Your task to perform on an android device: delete browsing data in the chrome app Image 0: 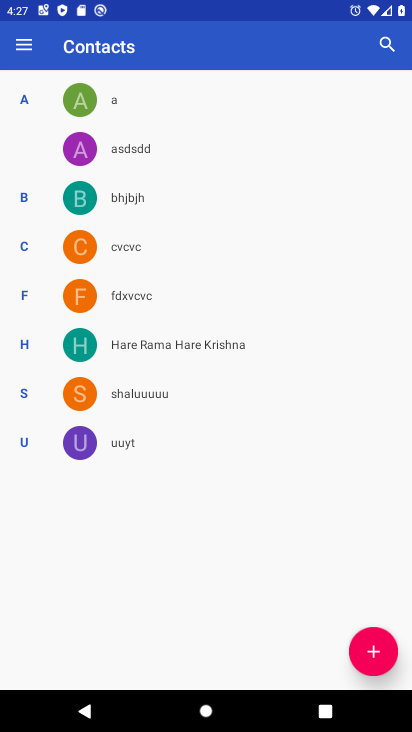
Step 0: press home button
Your task to perform on an android device: delete browsing data in the chrome app Image 1: 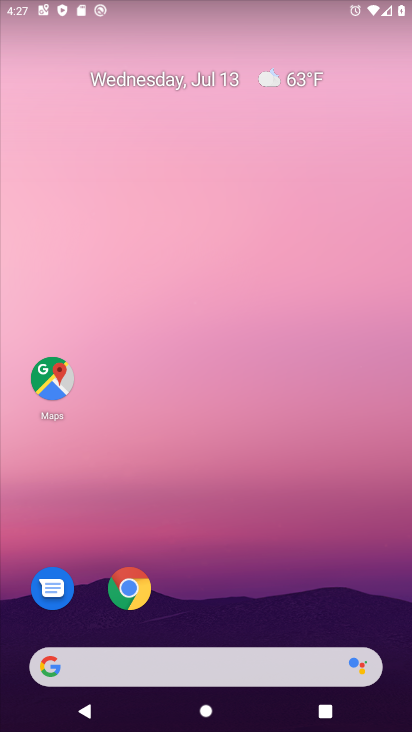
Step 1: click (128, 588)
Your task to perform on an android device: delete browsing data in the chrome app Image 2: 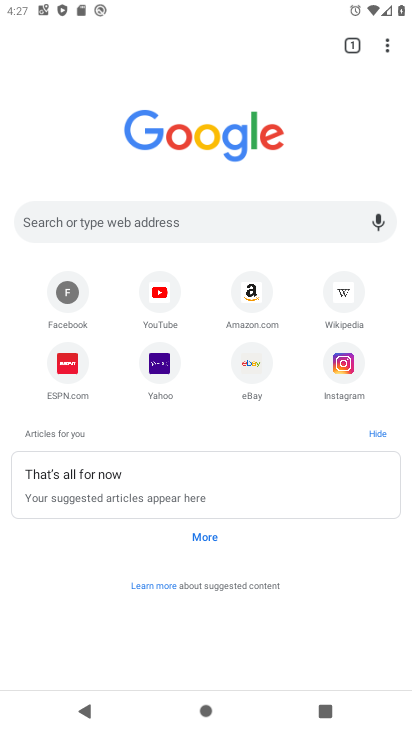
Step 2: click (387, 45)
Your task to perform on an android device: delete browsing data in the chrome app Image 3: 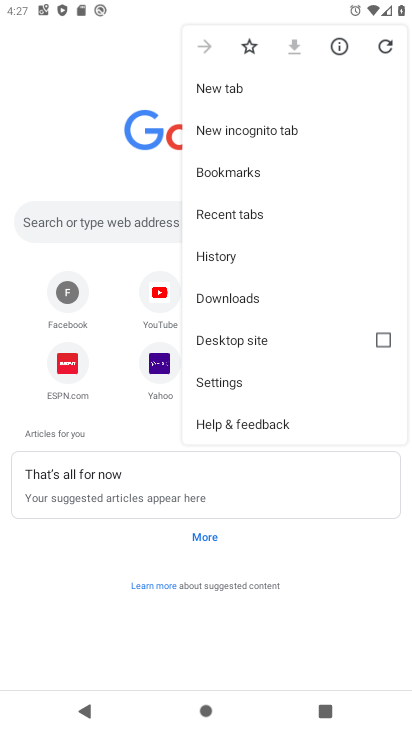
Step 3: click (227, 385)
Your task to perform on an android device: delete browsing data in the chrome app Image 4: 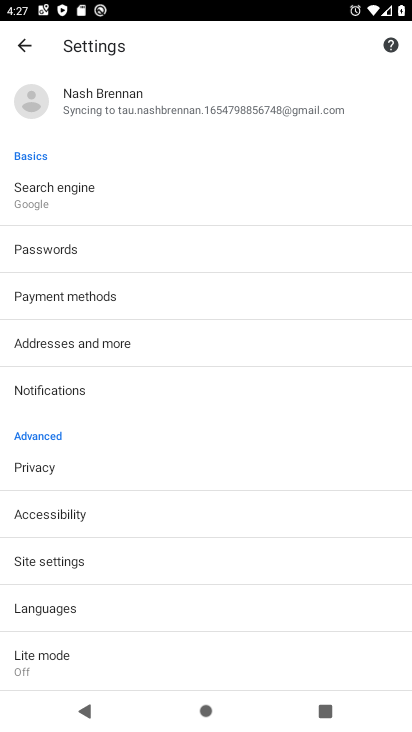
Step 4: click (40, 464)
Your task to perform on an android device: delete browsing data in the chrome app Image 5: 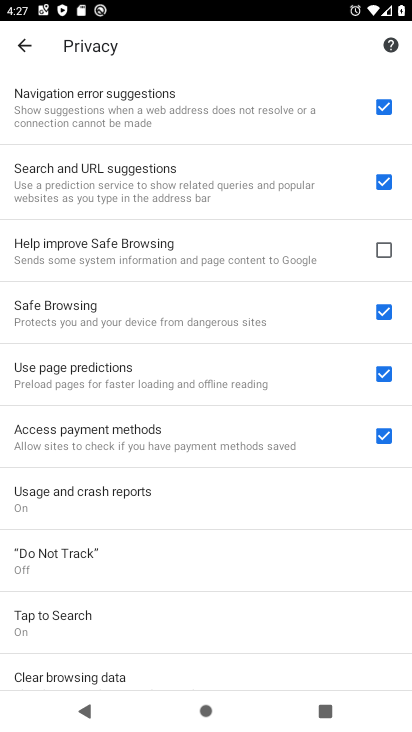
Step 5: click (59, 676)
Your task to perform on an android device: delete browsing data in the chrome app Image 6: 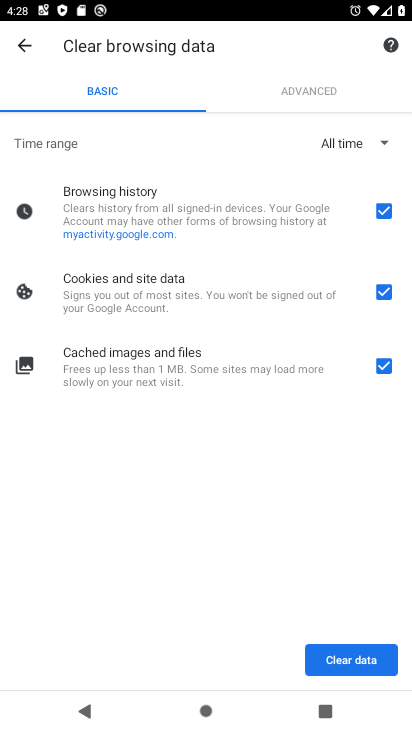
Step 6: click (335, 659)
Your task to perform on an android device: delete browsing data in the chrome app Image 7: 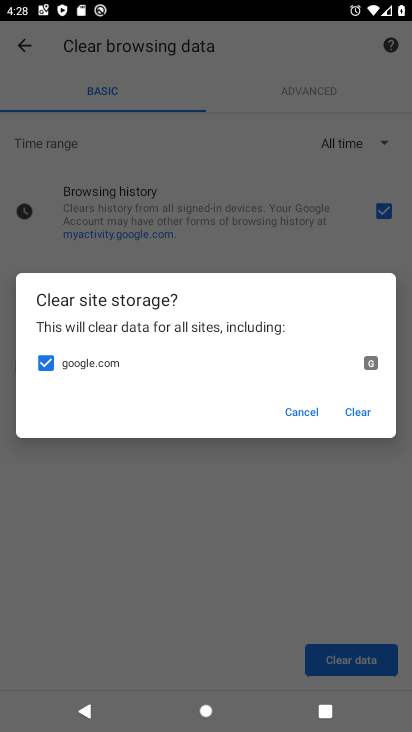
Step 7: click (356, 415)
Your task to perform on an android device: delete browsing data in the chrome app Image 8: 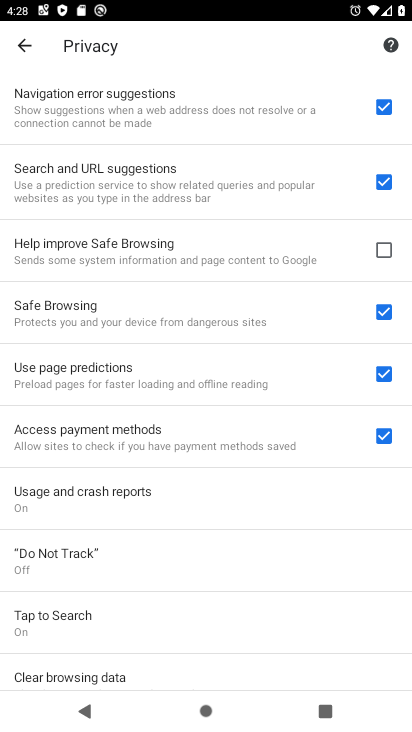
Step 8: task complete